Your task to perform on an android device: add a contact Image 0: 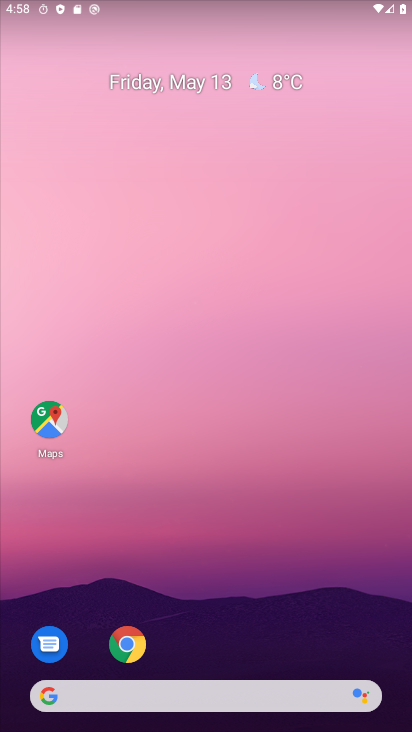
Step 0: drag from (223, 649) to (216, 108)
Your task to perform on an android device: add a contact Image 1: 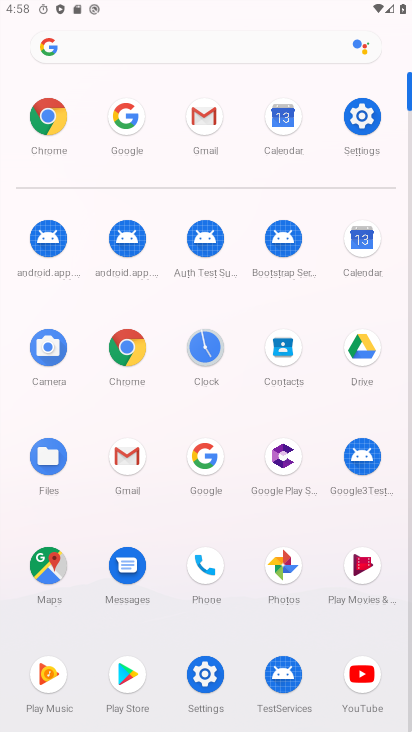
Step 1: click (289, 343)
Your task to perform on an android device: add a contact Image 2: 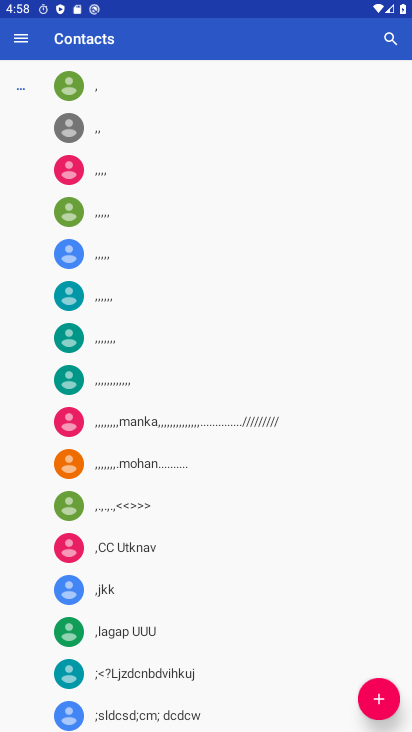
Step 2: click (377, 694)
Your task to perform on an android device: add a contact Image 3: 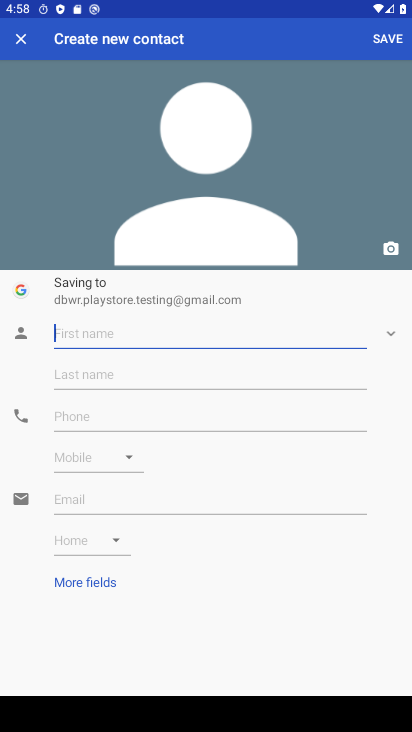
Step 3: type "mall"
Your task to perform on an android device: add a contact Image 4: 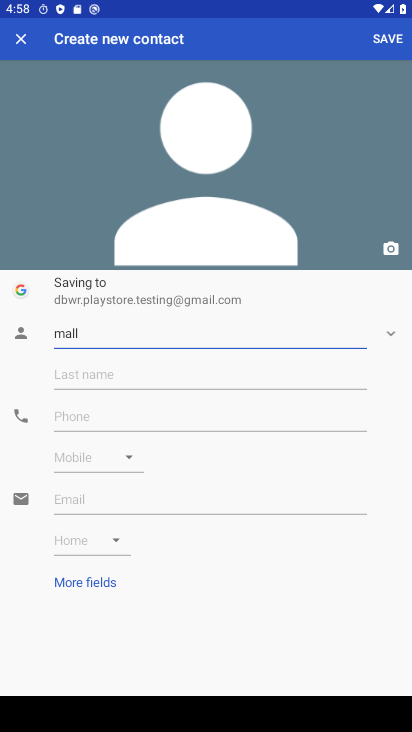
Step 4: click (192, 414)
Your task to perform on an android device: add a contact Image 5: 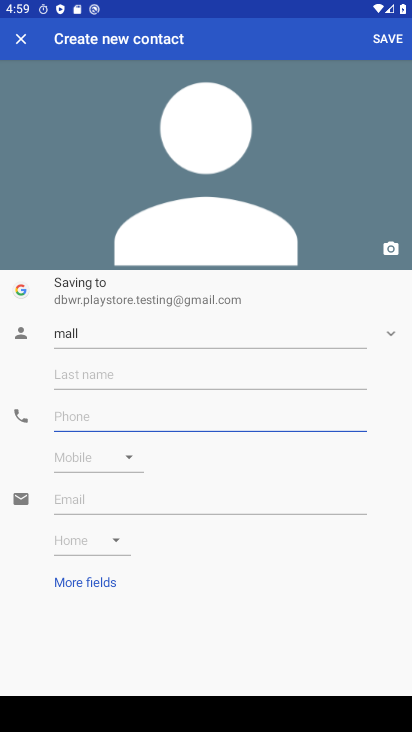
Step 5: type "3342667890"
Your task to perform on an android device: add a contact Image 6: 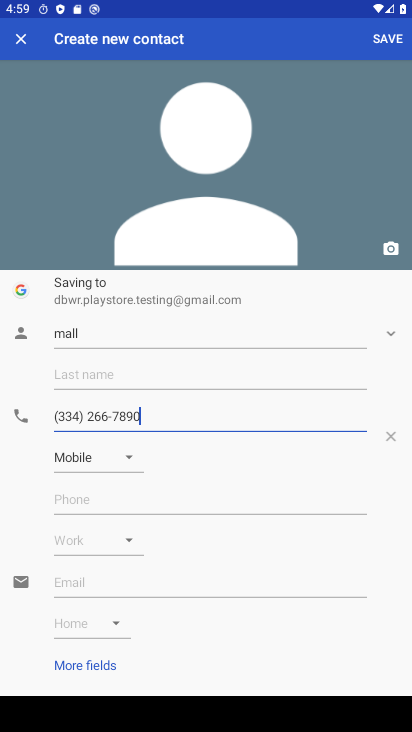
Step 6: click (388, 41)
Your task to perform on an android device: add a contact Image 7: 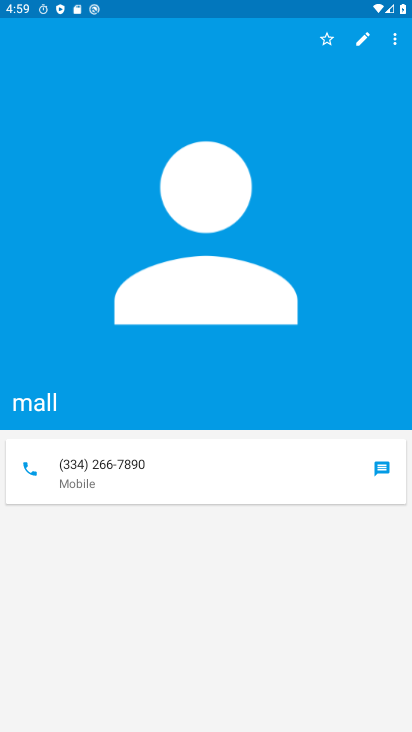
Step 7: task complete